Your task to perform on an android device: open a new tab in the chrome app Image 0: 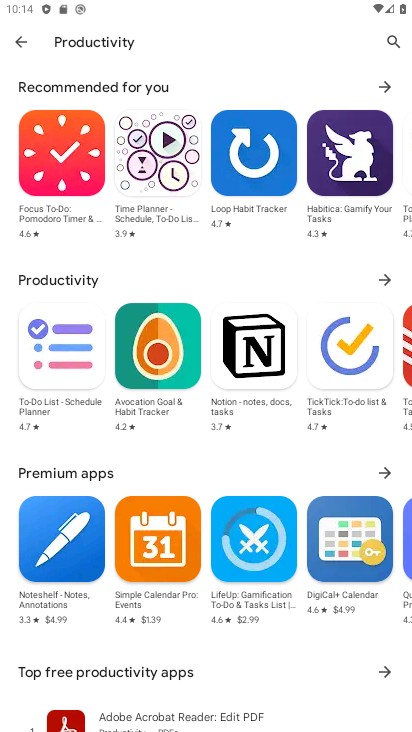
Step 0: press home button
Your task to perform on an android device: open a new tab in the chrome app Image 1: 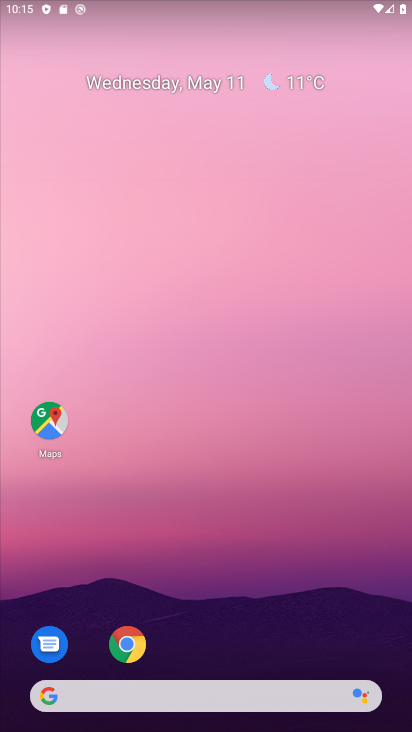
Step 1: click (126, 647)
Your task to perform on an android device: open a new tab in the chrome app Image 2: 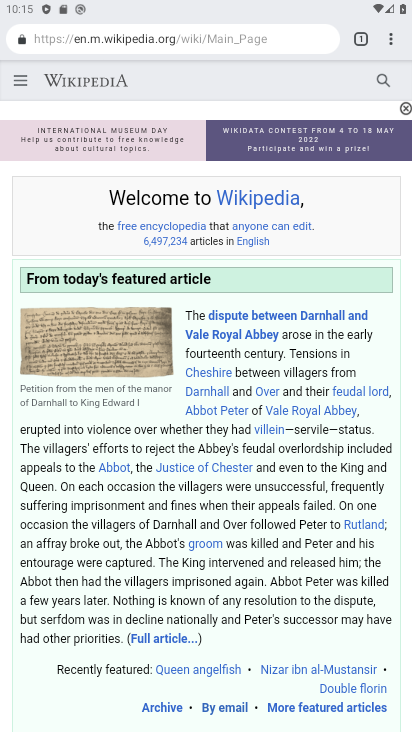
Step 2: task complete